Your task to perform on an android device: open the mobile data screen to see how much data has been used Image 0: 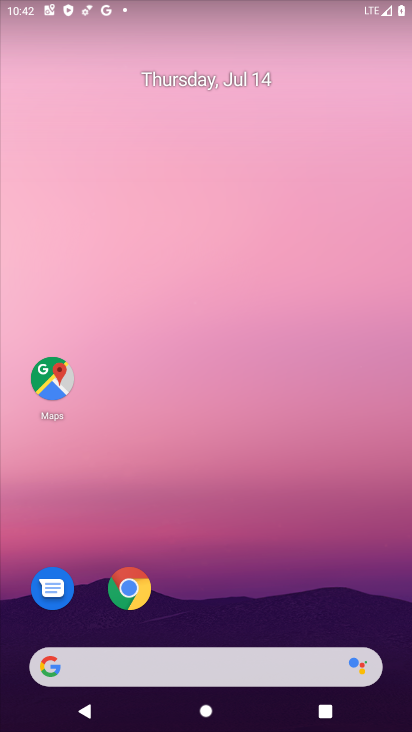
Step 0: drag from (149, 668) to (305, 116)
Your task to perform on an android device: open the mobile data screen to see how much data has been used Image 1: 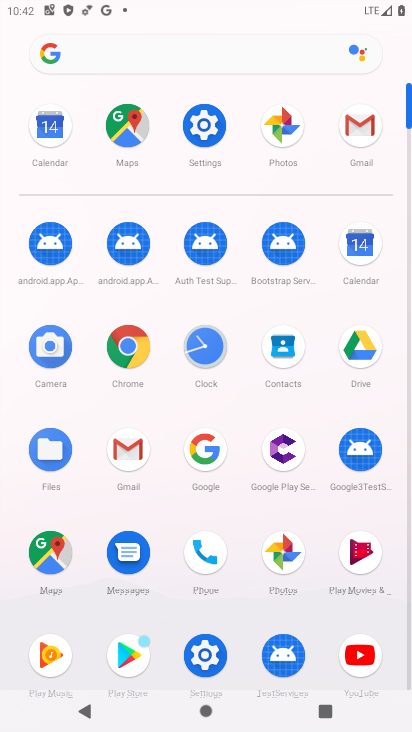
Step 1: click (203, 125)
Your task to perform on an android device: open the mobile data screen to see how much data has been used Image 2: 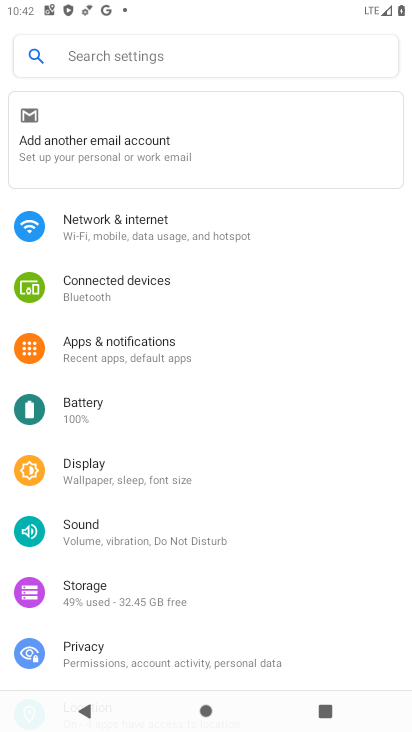
Step 2: click (166, 226)
Your task to perform on an android device: open the mobile data screen to see how much data has been used Image 3: 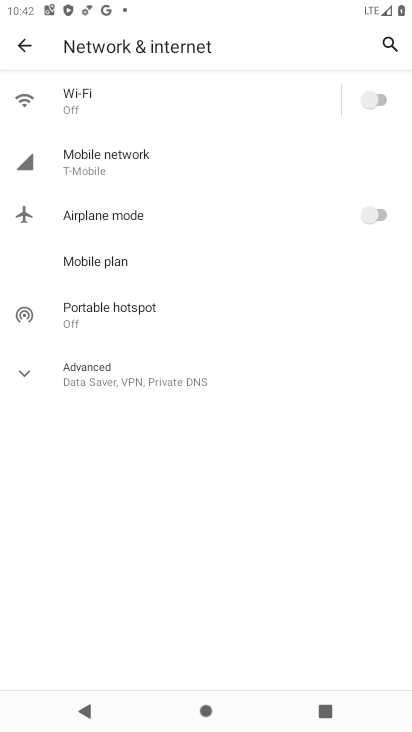
Step 3: click (138, 161)
Your task to perform on an android device: open the mobile data screen to see how much data has been used Image 4: 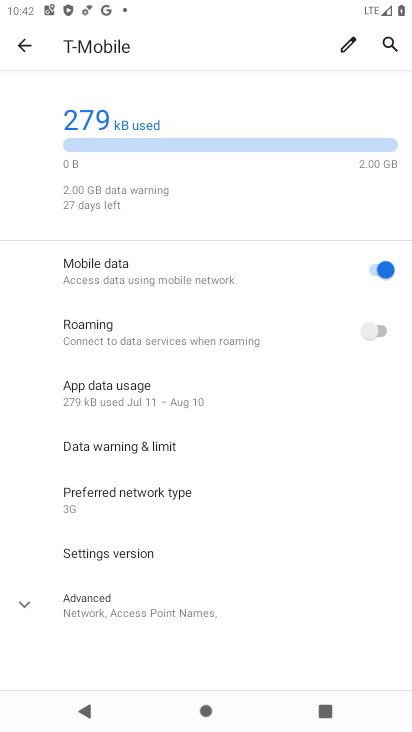
Step 4: task complete